Your task to perform on an android device: Open wifi settings Image 0: 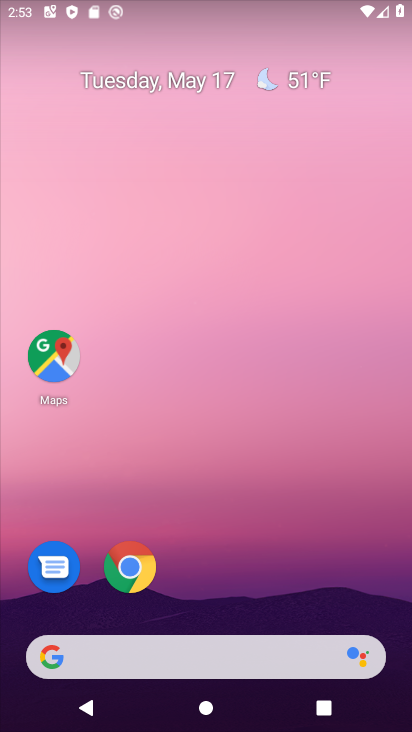
Step 0: drag from (227, 644) to (228, 94)
Your task to perform on an android device: Open wifi settings Image 1: 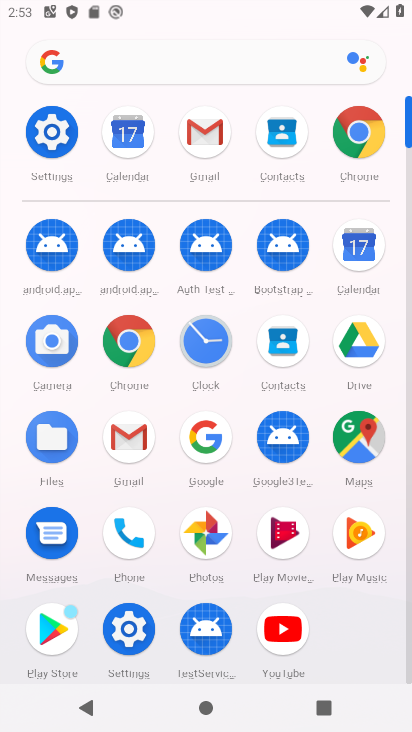
Step 1: click (53, 136)
Your task to perform on an android device: Open wifi settings Image 2: 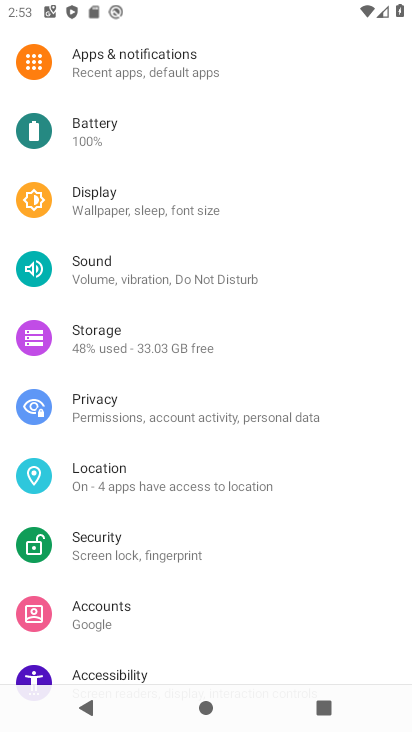
Step 2: drag from (128, 138) to (166, 466)
Your task to perform on an android device: Open wifi settings Image 3: 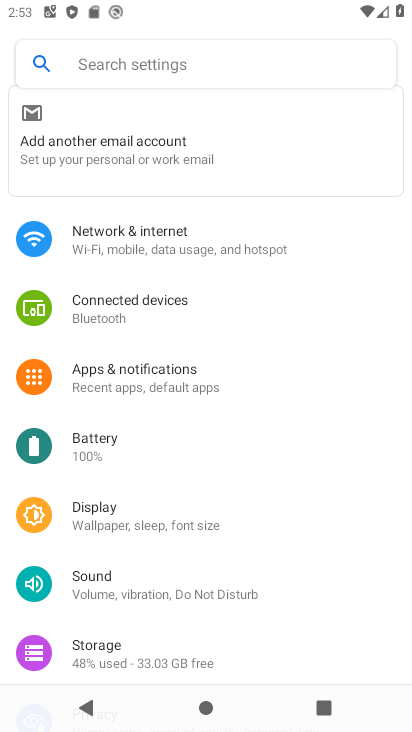
Step 3: click (157, 230)
Your task to perform on an android device: Open wifi settings Image 4: 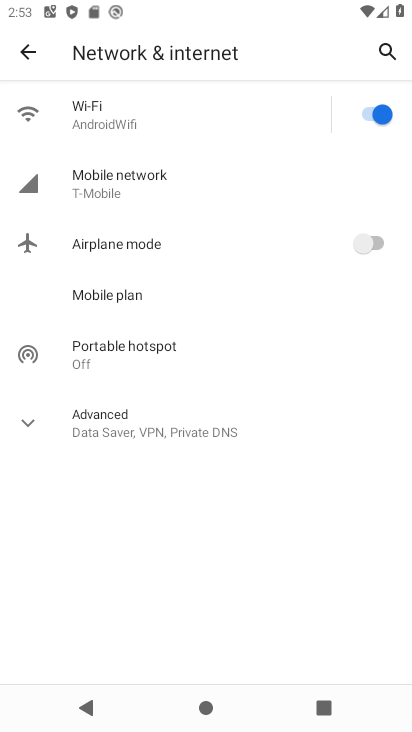
Step 4: click (104, 117)
Your task to perform on an android device: Open wifi settings Image 5: 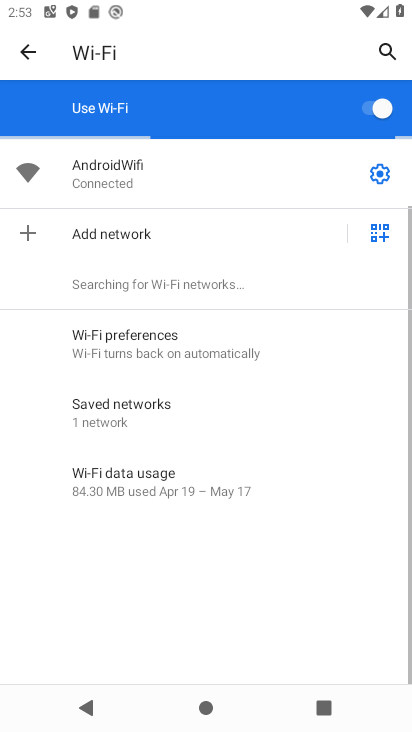
Step 5: task complete